Your task to perform on an android device: Open the Play Movies app and select the watchlist tab. Image 0: 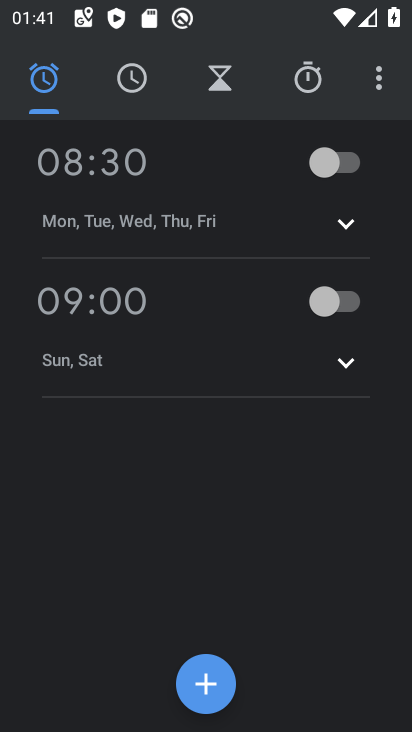
Step 0: click (146, 504)
Your task to perform on an android device: Open the Play Movies app and select the watchlist tab. Image 1: 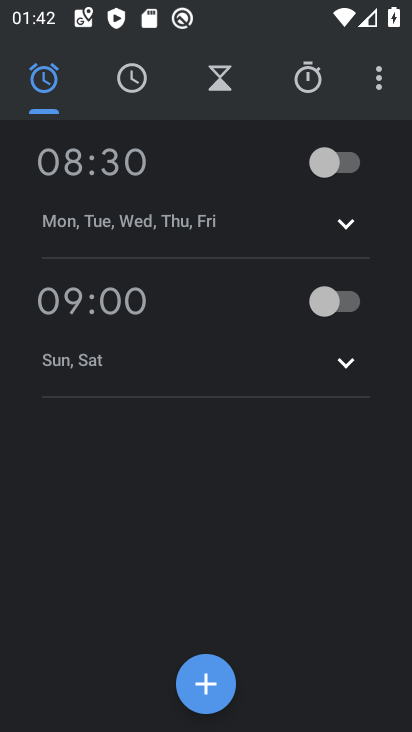
Step 1: press back button
Your task to perform on an android device: Open the Play Movies app and select the watchlist tab. Image 2: 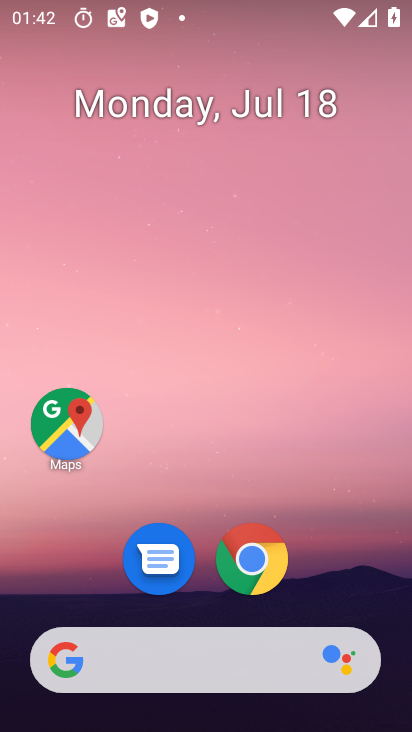
Step 2: drag from (48, 614) to (175, 71)
Your task to perform on an android device: Open the Play Movies app and select the watchlist tab. Image 3: 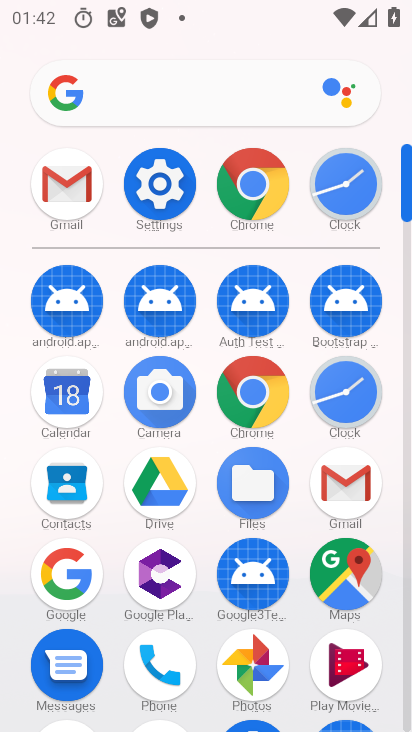
Step 3: click (357, 670)
Your task to perform on an android device: Open the Play Movies app and select the watchlist tab. Image 4: 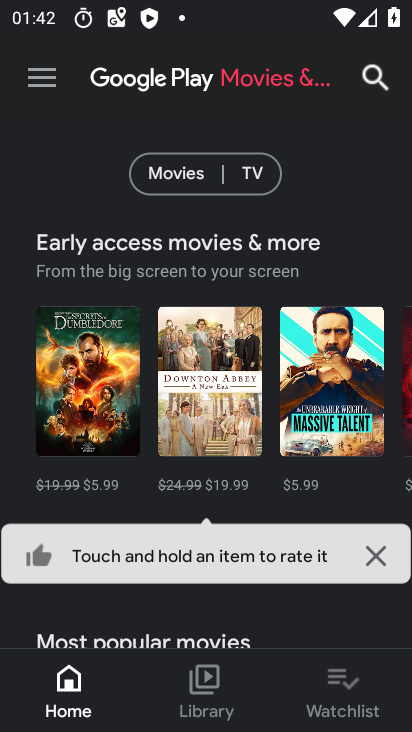
Step 4: click (353, 691)
Your task to perform on an android device: Open the Play Movies app and select the watchlist tab. Image 5: 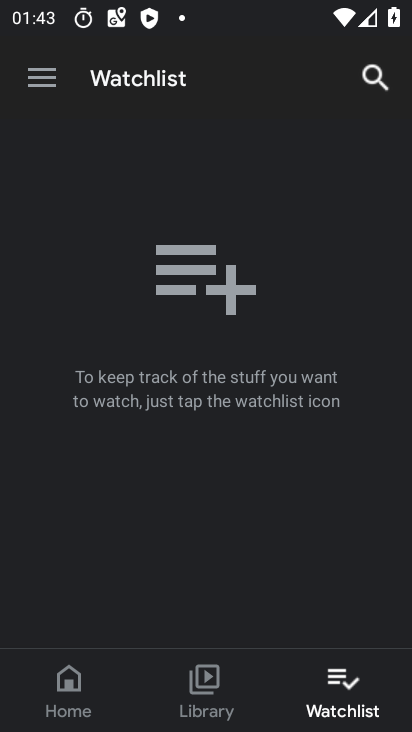
Step 5: task complete